Your task to perform on an android device: turn on notifications settings in the gmail app Image 0: 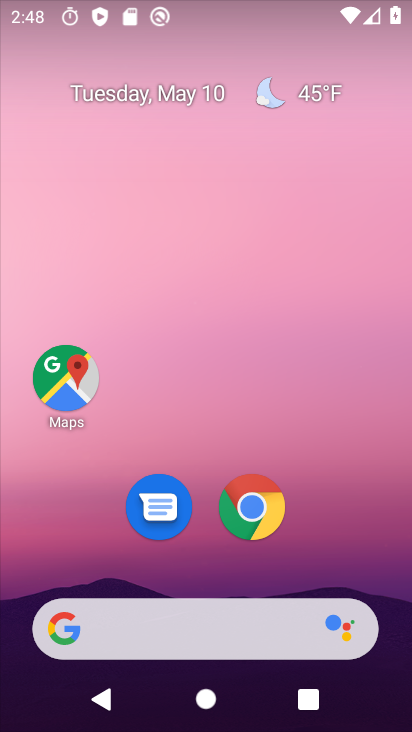
Step 0: drag from (165, 598) to (165, 200)
Your task to perform on an android device: turn on notifications settings in the gmail app Image 1: 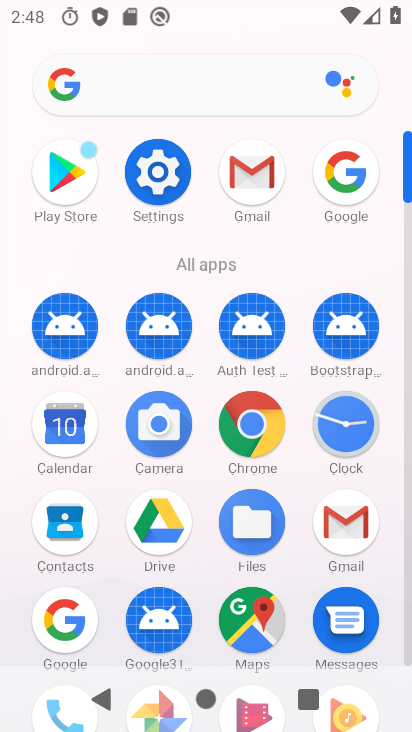
Step 1: click (240, 190)
Your task to perform on an android device: turn on notifications settings in the gmail app Image 2: 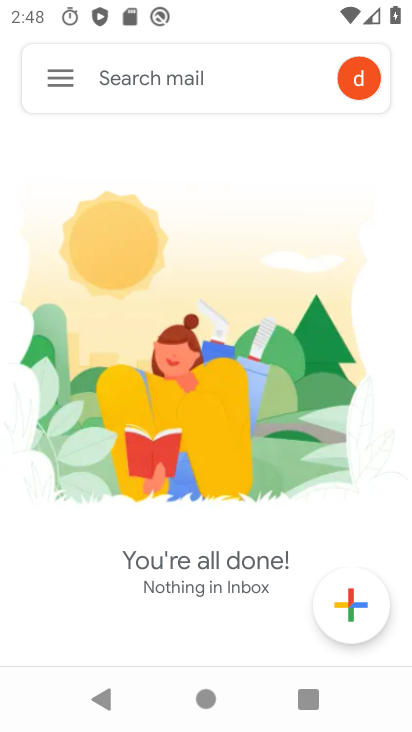
Step 2: click (53, 70)
Your task to perform on an android device: turn on notifications settings in the gmail app Image 3: 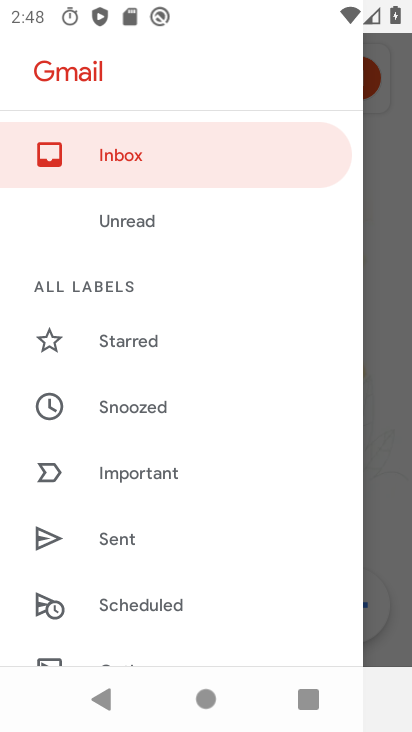
Step 3: click (150, 304)
Your task to perform on an android device: turn on notifications settings in the gmail app Image 4: 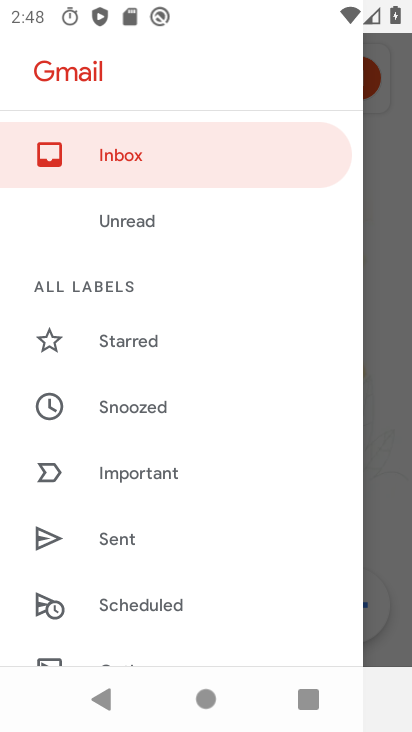
Step 4: drag from (123, 637) to (129, 235)
Your task to perform on an android device: turn on notifications settings in the gmail app Image 5: 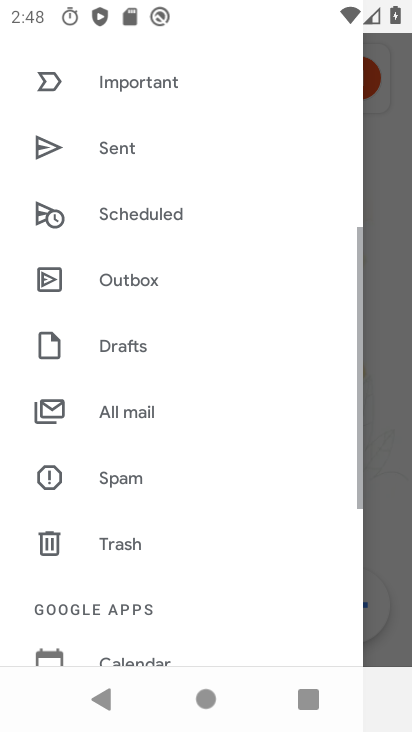
Step 5: drag from (160, 611) to (170, 250)
Your task to perform on an android device: turn on notifications settings in the gmail app Image 6: 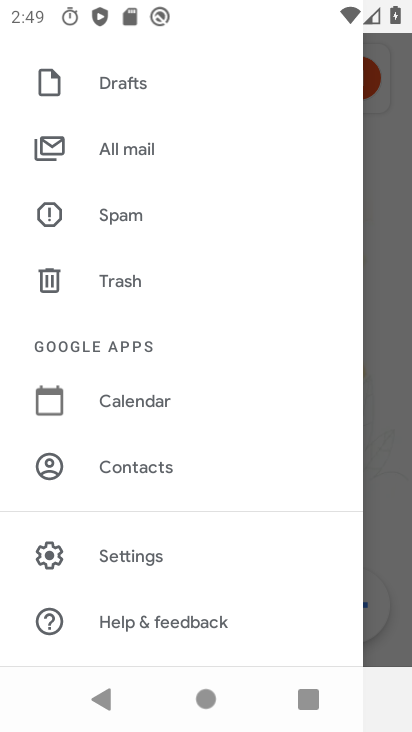
Step 6: click (397, 274)
Your task to perform on an android device: turn on notifications settings in the gmail app Image 7: 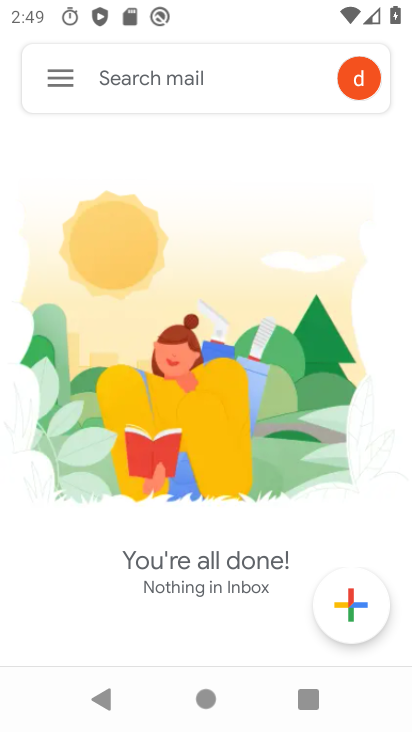
Step 7: click (60, 78)
Your task to perform on an android device: turn on notifications settings in the gmail app Image 8: 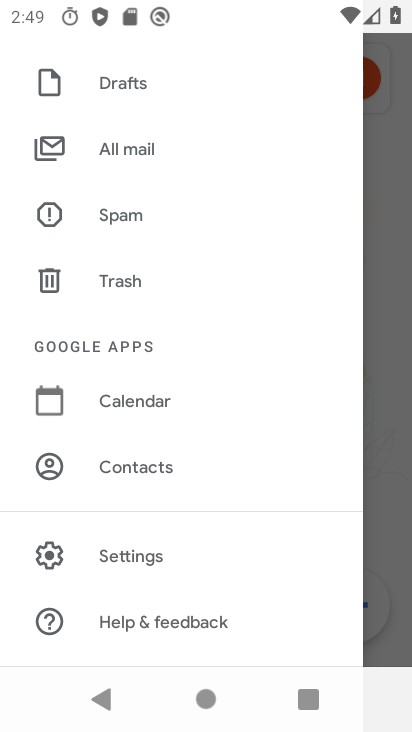
Step 8: click (137, 546)
Your task to perform on an android device: turn on notifications settings in the gmail app Image 9: 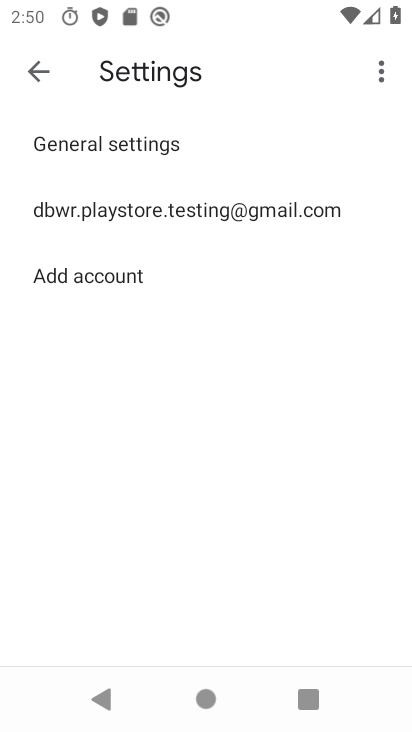
Step 9: click (60, 154)
Your task to perform on an android device: turn on notifications settings in the gmail app Image 10: 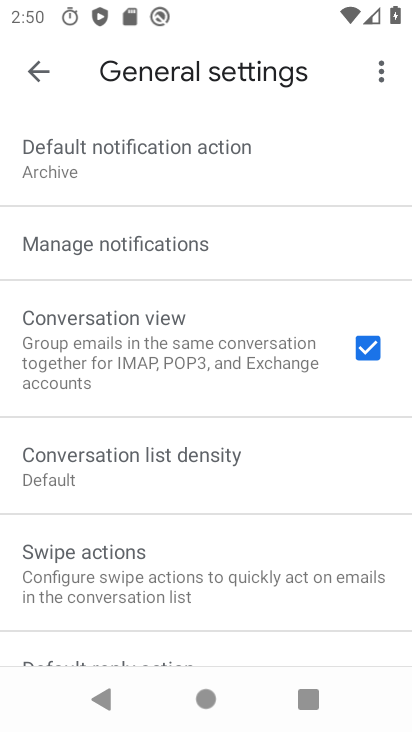
Step 10: click (100, 247)
Your task to perform on an android device: turn on notifications settings in the gmail app Image 11: 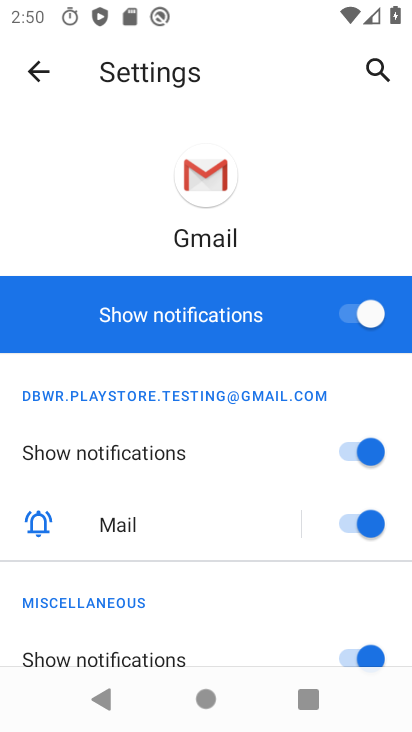
Step 11: task complete